Your task to perform on an android device: Empty the shopping cart on ebay.com. Add "logitech g pro" to the cart on ebay.com, then select checkout. Image 0: 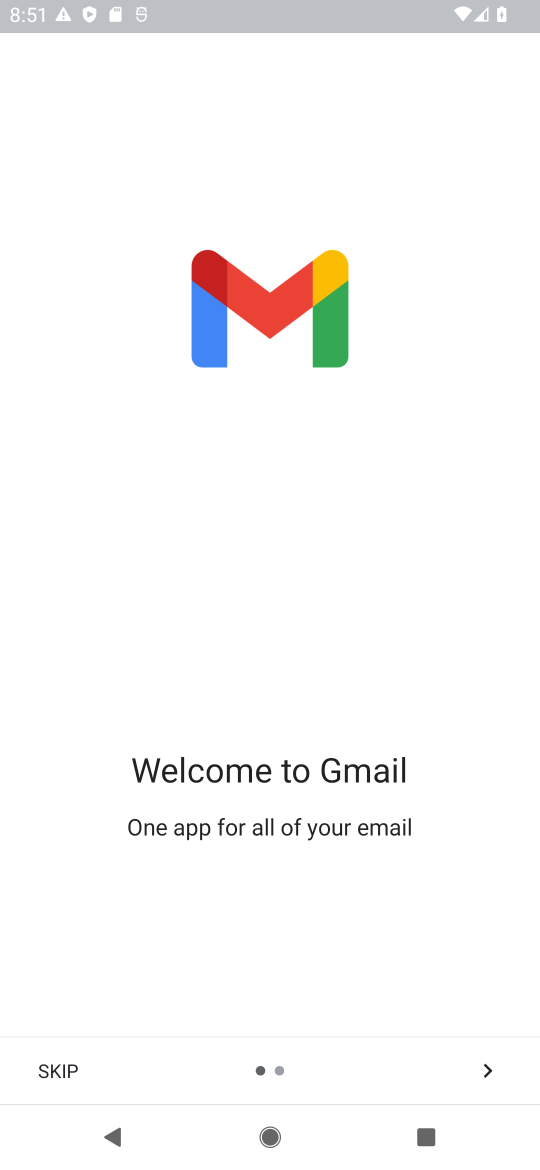
Step 0: press home button
Your task to perform on an android device: Empty the shopping cart on ebay.com. Add "logitech g pro" to the cart on ebay.com, then select checkout. Image 1: 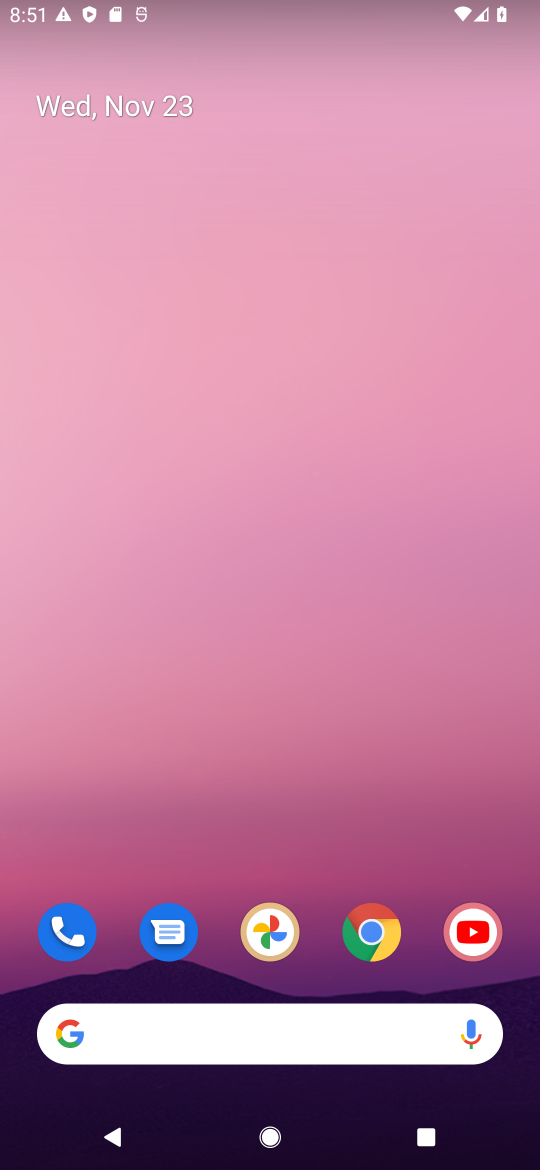
Step 1: click (384, 946)
Your task to perform on an android device: Empty the shopping cart on ebay.com. Add "logitech g pro" to the cart on ebay.com, then select checkout. Image 2: 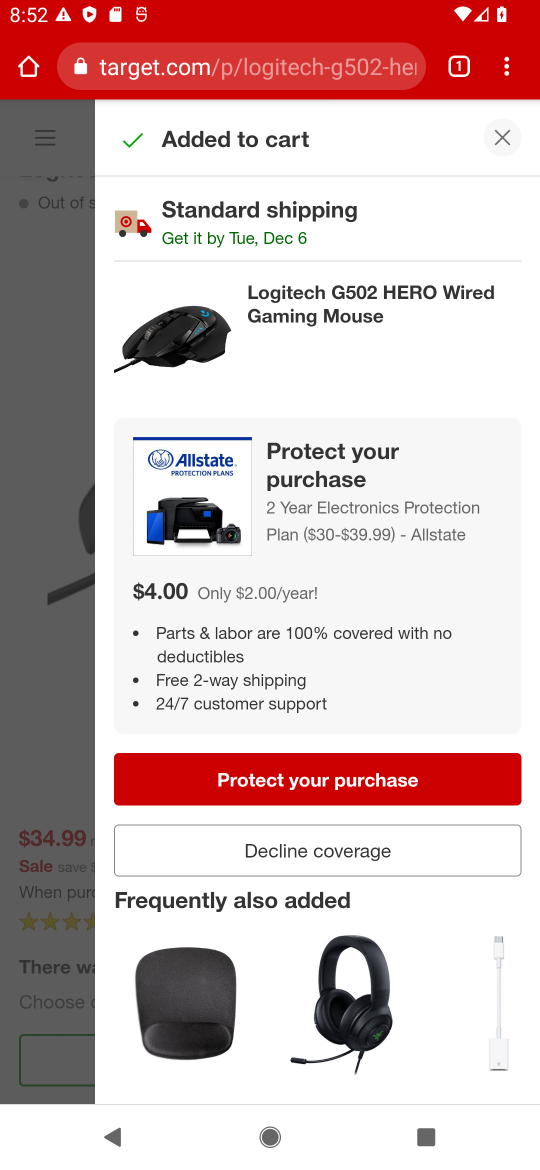
Step 2: click (198, 81)
Your task to perform on an android device: Empty the shopping cart on ebay.com. Add "logitech g pro" to the cart on ebay.com, then select checkout. Image 3: 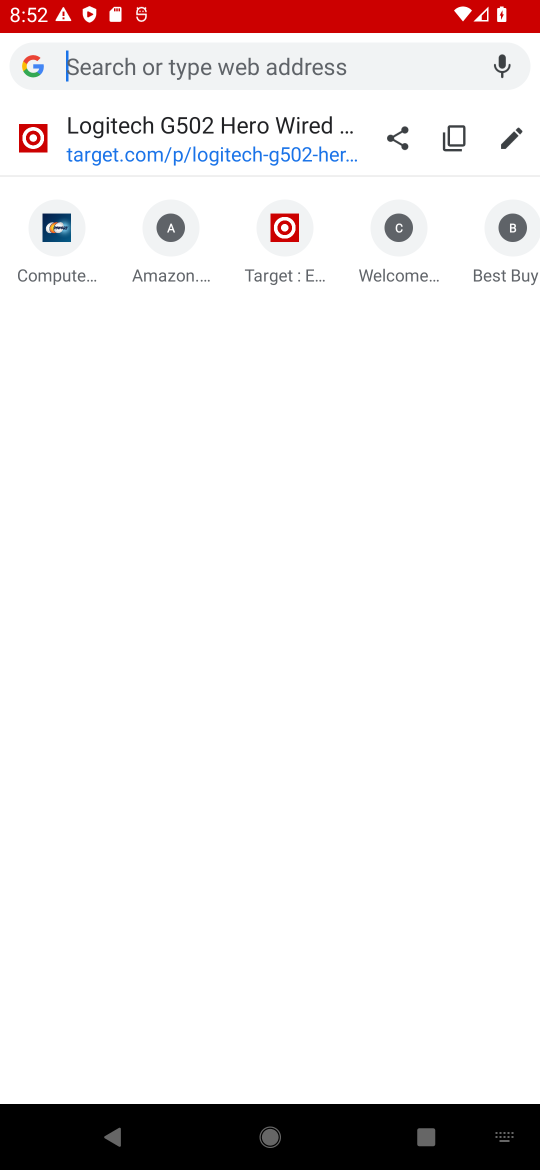
Step 3: type "ebay.com"
Your task to perform on an android device: Empty the shopping cart on ebay.com. Add "logitech g pro" to the cart on ebay.com, then select checkout. Image 4: 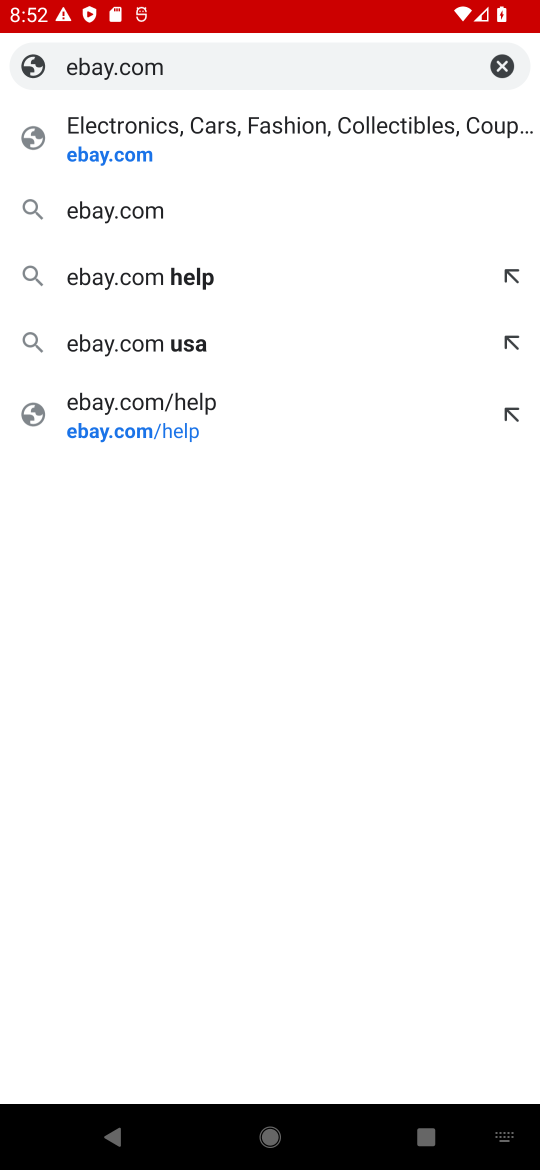
Step 4: click (219, 128)
Your task to perform on an android device: Empty the shopping cart on ebay.com. Add "logitech g pro" to the cart on ebay.com, then select checkout. Image 5: 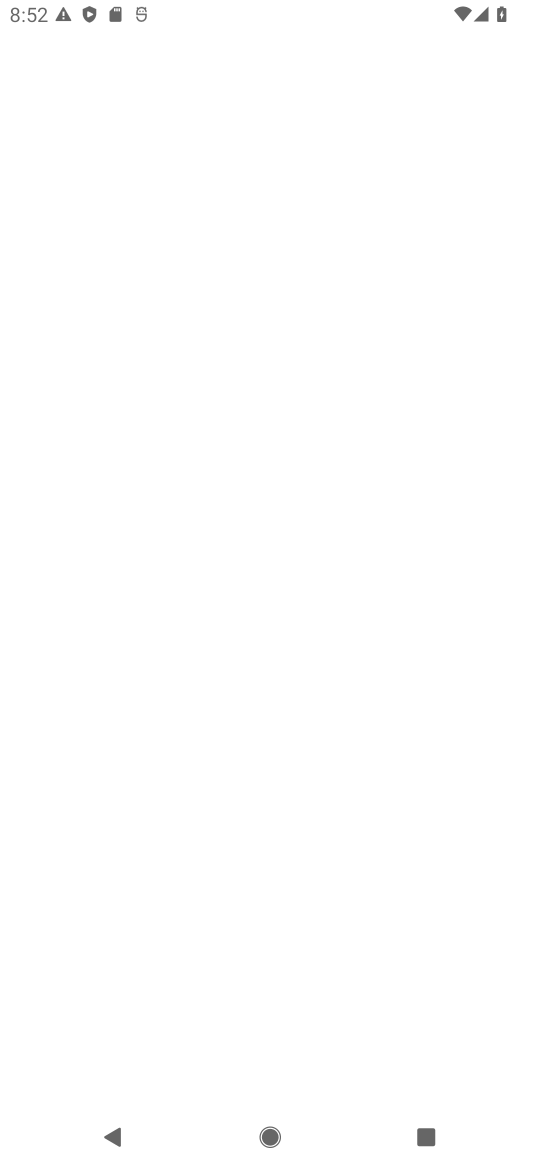
Step 5: task complete